Your task to perform on an android device: delete a single message in the gmail app Image 0: 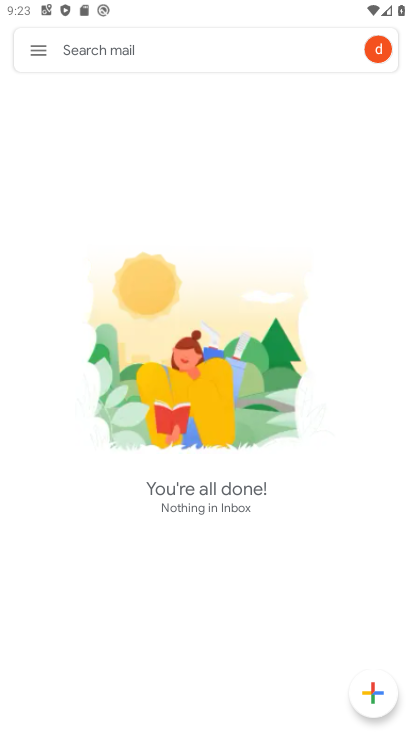
Step 0: click (40, 50)
Your task to perform on an android device: delete a single message in the gmail app Image 1: 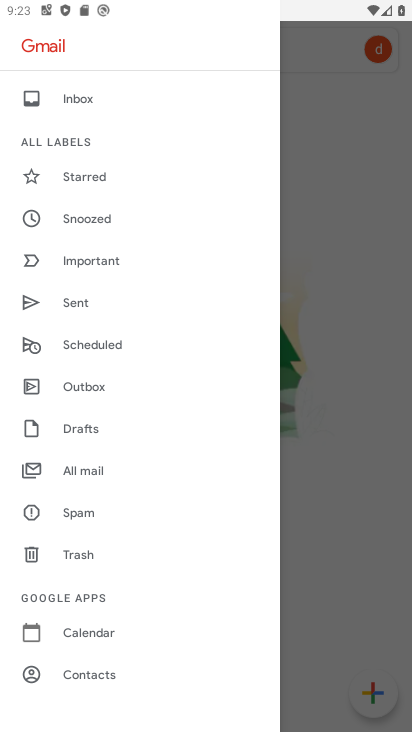
Step 1: click (100, 474)
Your task to perform on an android device: delete a single message in the gmail app Image 2: 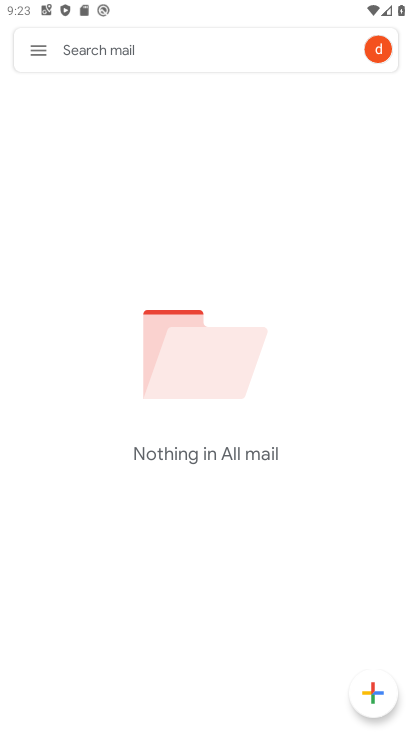
Step 2: task complete